Your task to perform on an android device: toggle improve location accuracy Image 0: 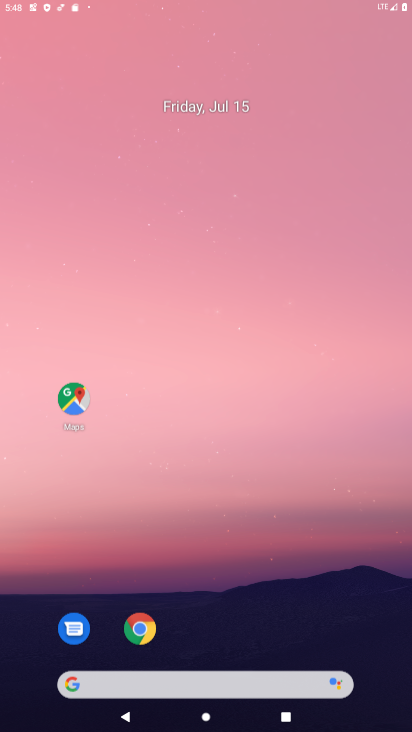
Step 0: press home button
Your task to perform on an android device: toggle improve location accuracy Image 1: 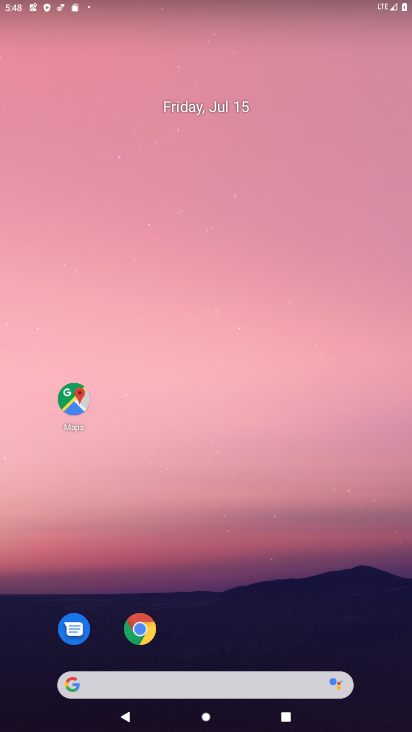
Step 1: drag from (269, 624) to (367, 3)
Your task to perform on an android device: toggle improve location accuracy Image 2: 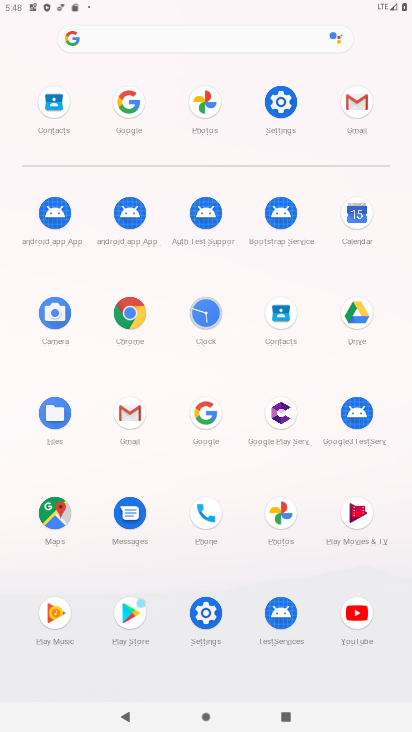
Step 2: click (280, 95)
Your task to perform on an android device: toggle improve location accuracy Image 3: 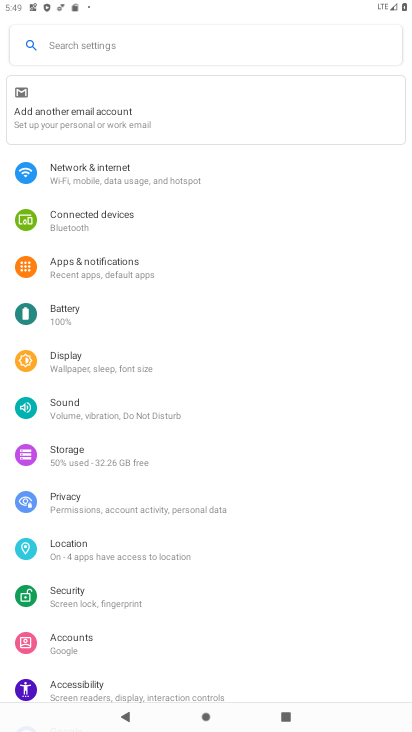
Step 3: click (63, 545)
Your task to perform on an android device: toggle improve location accuracy Image 4: 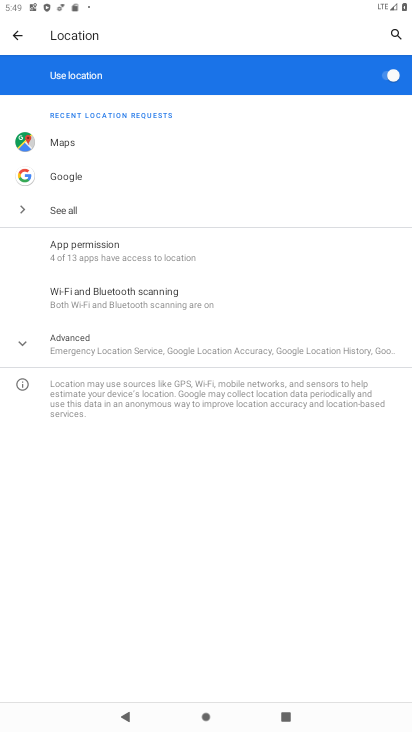
Step 4: click (81, 346)
Your task to perform on an android device: toggle improve location accuracy Image 5: 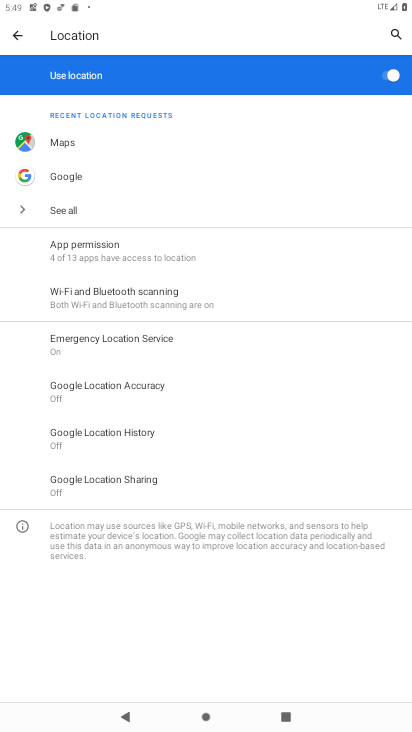
Step 5: click (94, 392)
Your task to perform on an android device: toggle improve location accuracy Image 6: 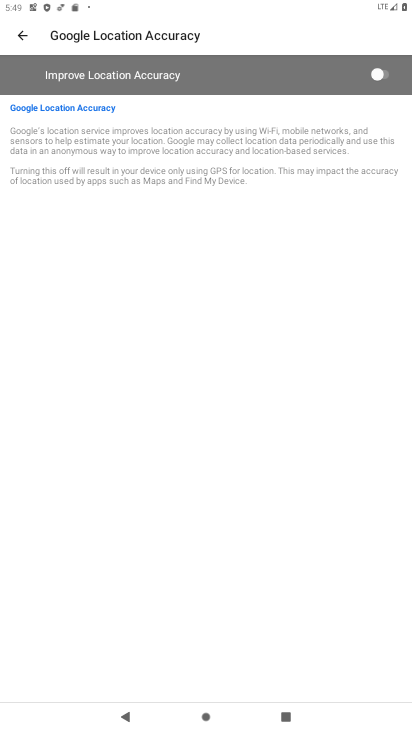
Step 6: click (387, 69)
Your task to perform on an android device: toggle improve location accuracy Image 7: 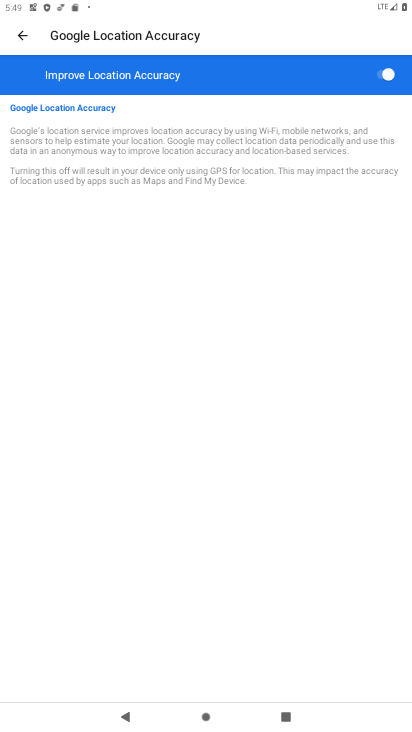
Step 7: task complete